Your task to perform on an android device: toggle data saver in the chrome app Image 0: 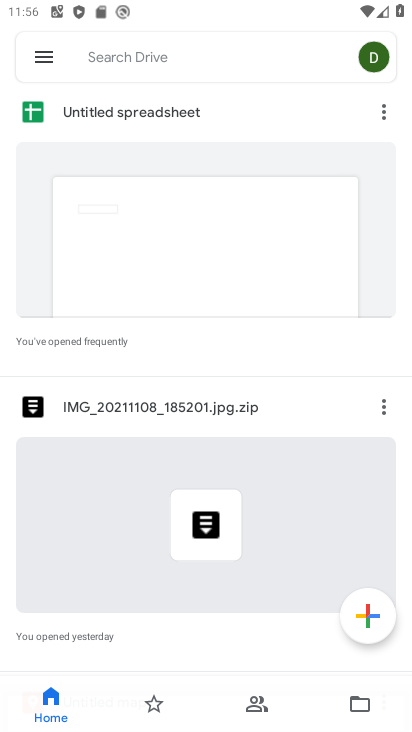
Step 0: press home button
Your task to perform on an android device: toggle data saver in the chrome app Image 1: 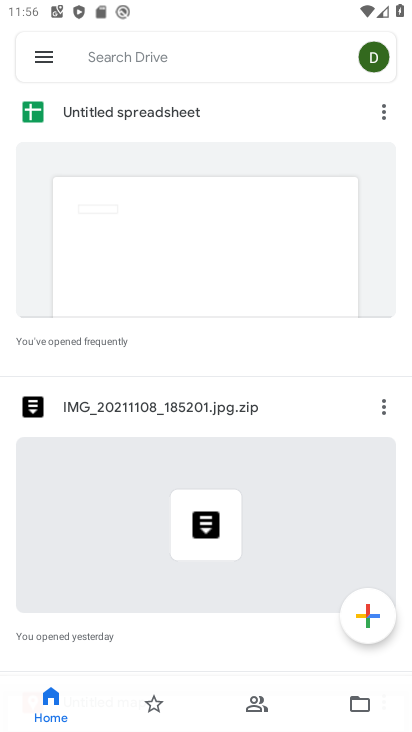
Step 1: press home button
Your task to perform on an android device: toggle data saver in the chrome app Image 2: 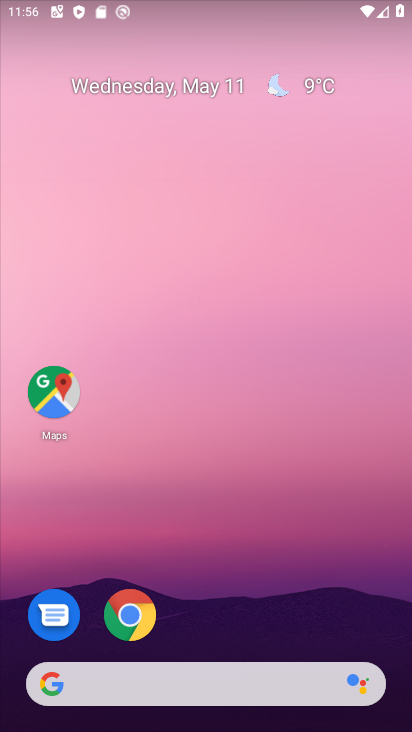
Step 2: click (130, 610)
Your task to perform on an android device: toggle data saver in the chrome app Image 3: 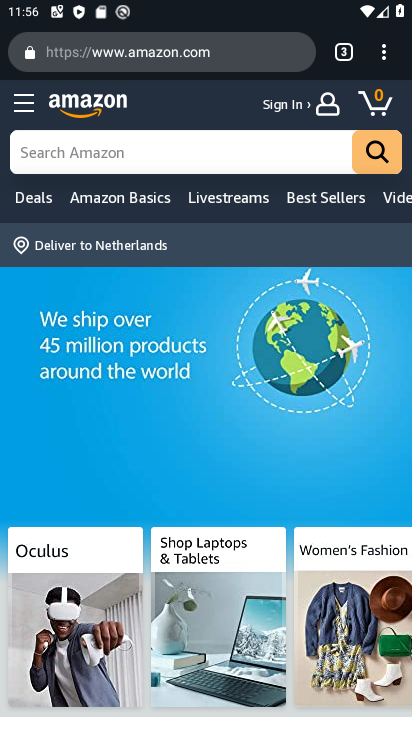
Step 3: drag from (382, 53) to (206, 622)
Your task to perform on an android device: toggle data saver in the chrome app Image 4: 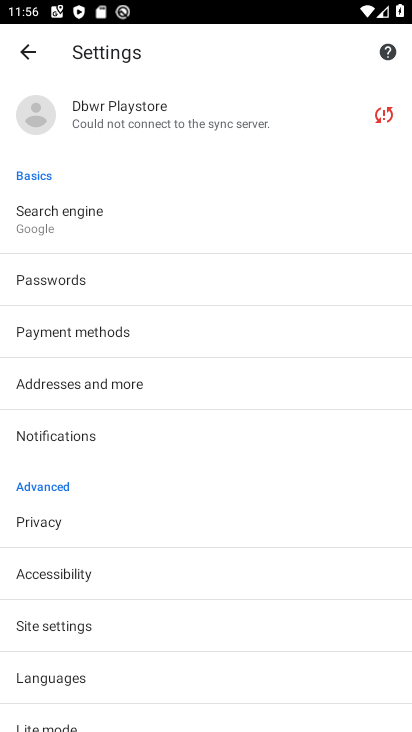
Step 4: drag from (84, 637) to (182, 318)
Your task to perform on an android device: toggle data saver in the chrome app Image 5: 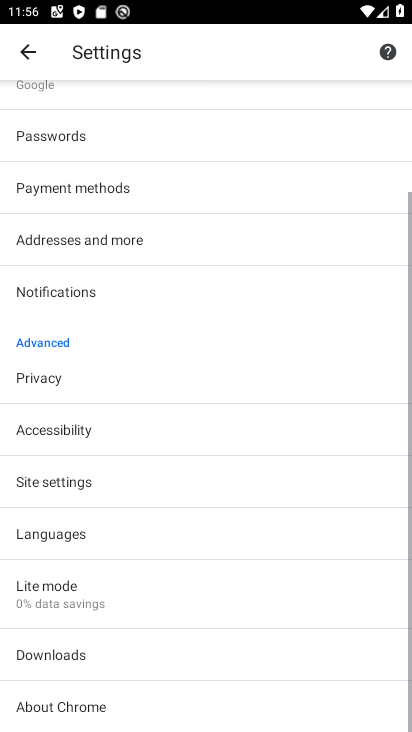
Step 5: click (75, 593)
Your task to perform on an android device: toggle data saver in the chrome app Image 6: 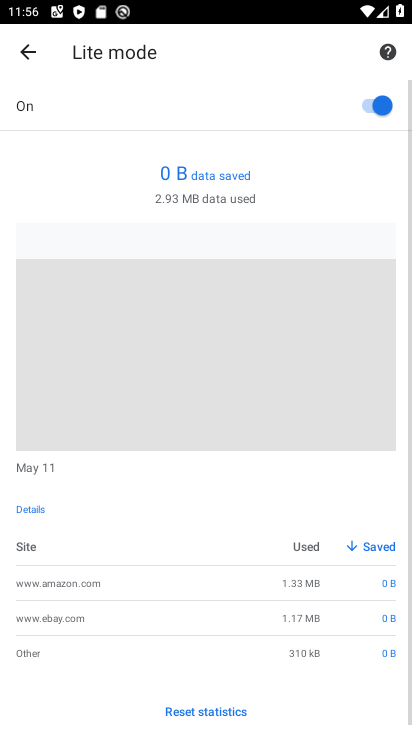
Step 6: click (377, 104)
Your task to perform on an android device: toggle data saver in the chrome app Image 7: 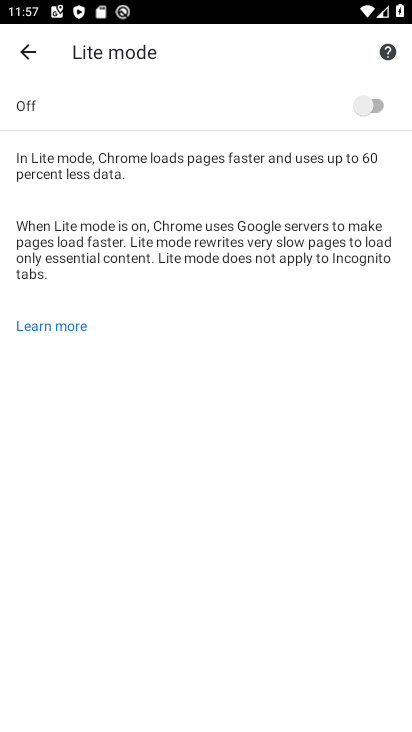
Step 7: task complete